Your task to perform on an android device: Set the phone to "Do not disturb". Image 0: 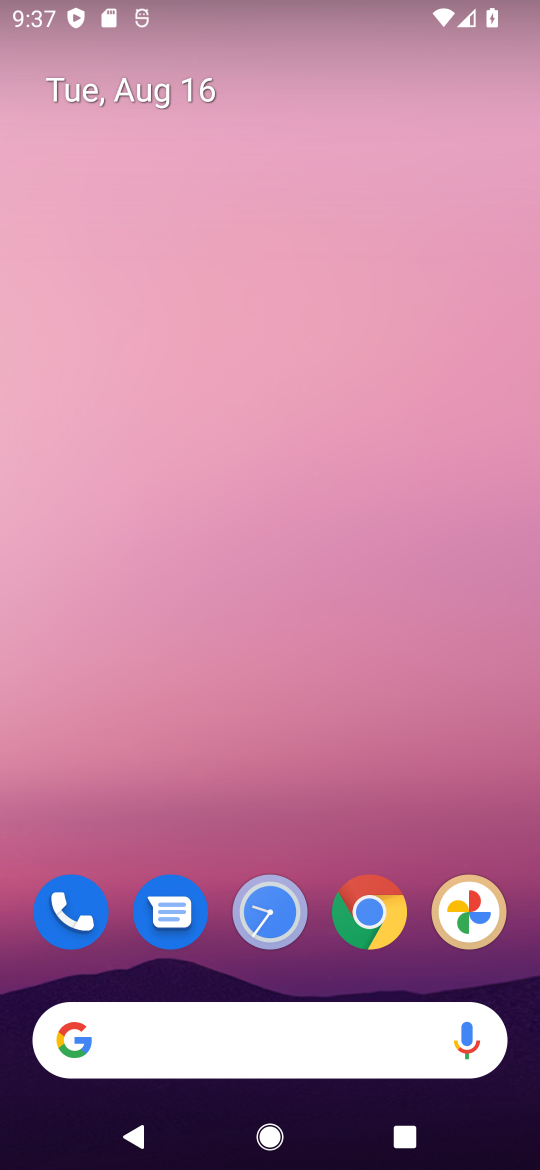
Step 0: drag from (377, 11) to (315, 490)
Your task to perform on an android device: Set the phone to "Do not disturb". Image 1: 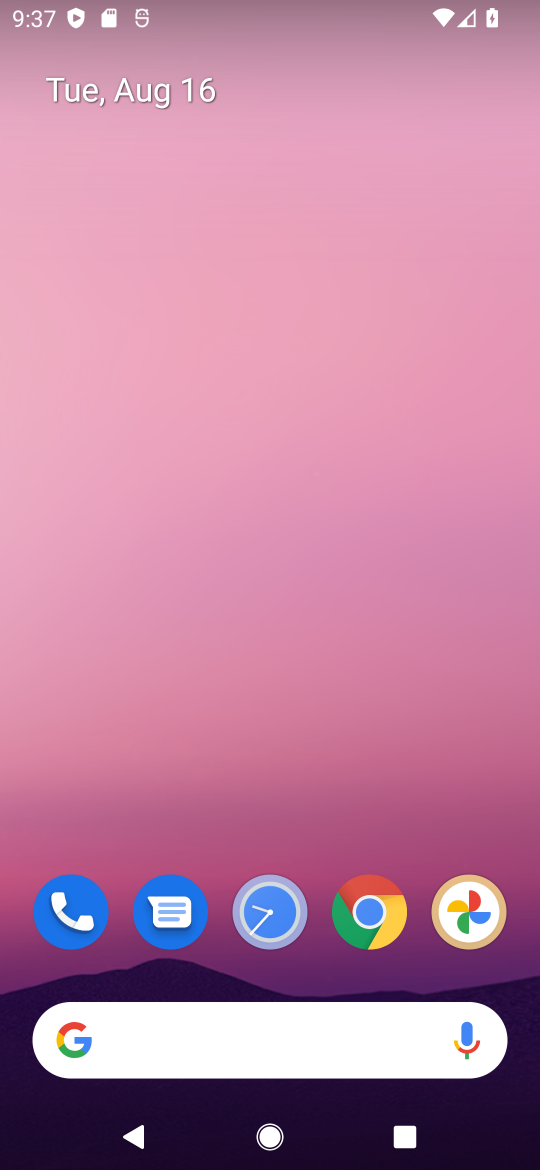
Step 1: drag from (327, 14) to (273, 1144)
Your task to perform on an android device: Set the phone to "Do not disturb". Image 2: 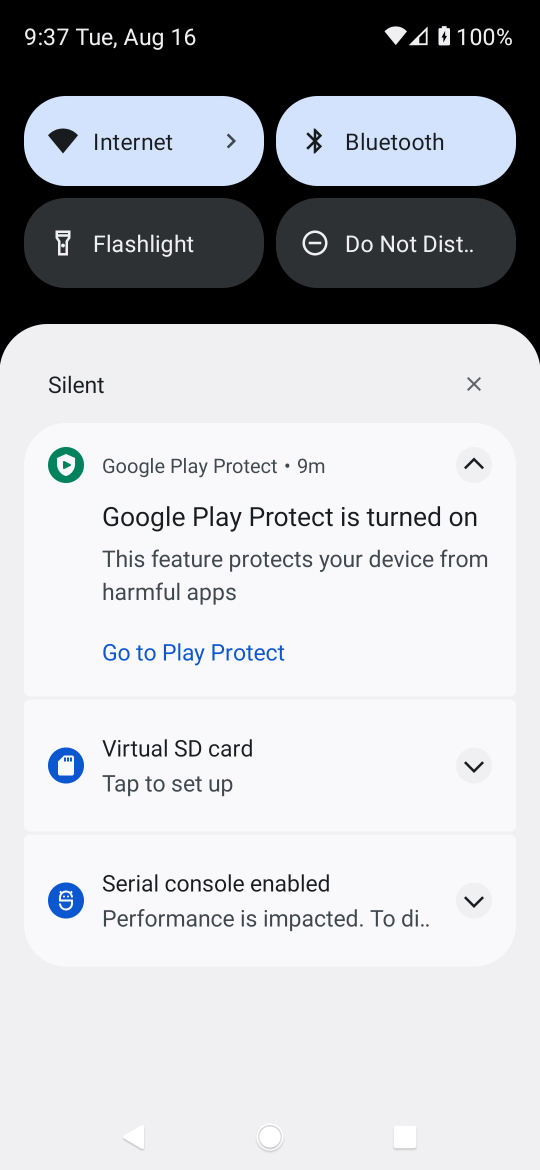
Step 2: click (412, 265)
Your task to perform on an android device: Set the phone to "Do not disturb". Image 3: 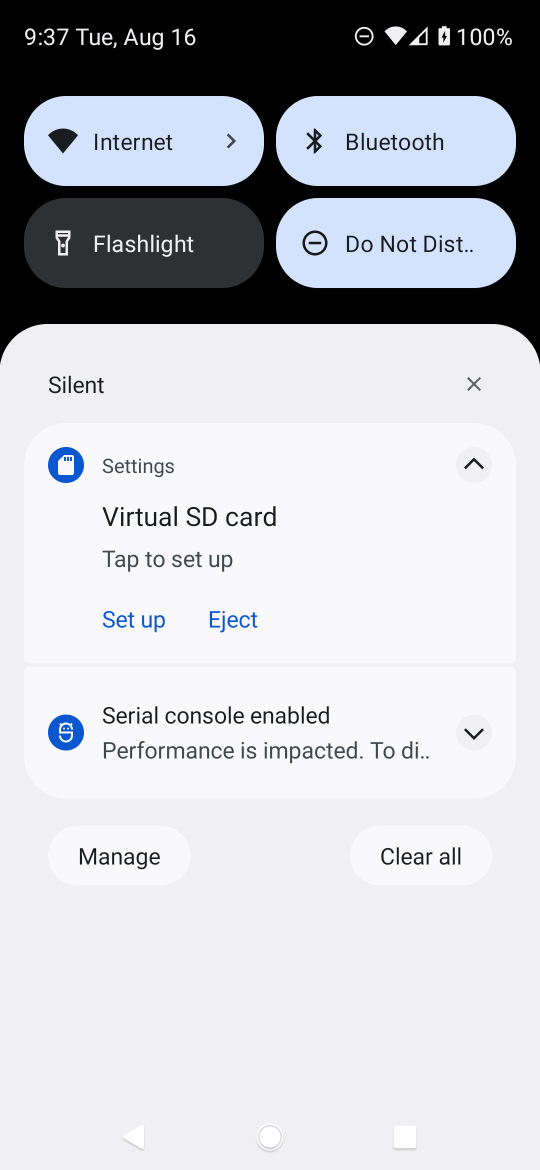
Step 3: click (421, 844)
Your task to perform on an android device: Set the phone to "Do not disturb". Image 4: 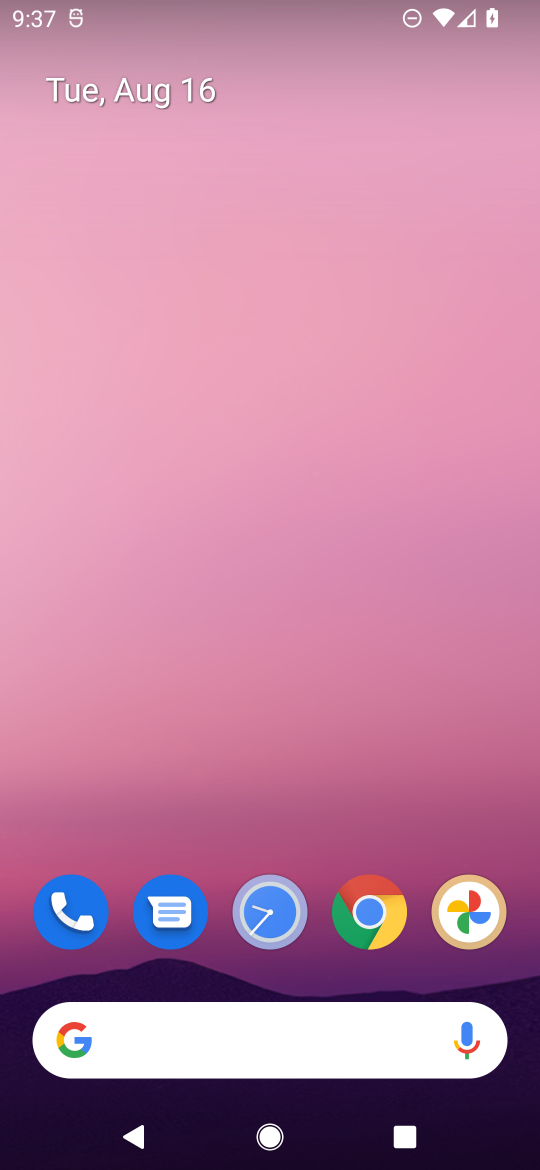
Step 4: task complete